Your task to perform on an android device: change your default location settings in chrome Image 0: 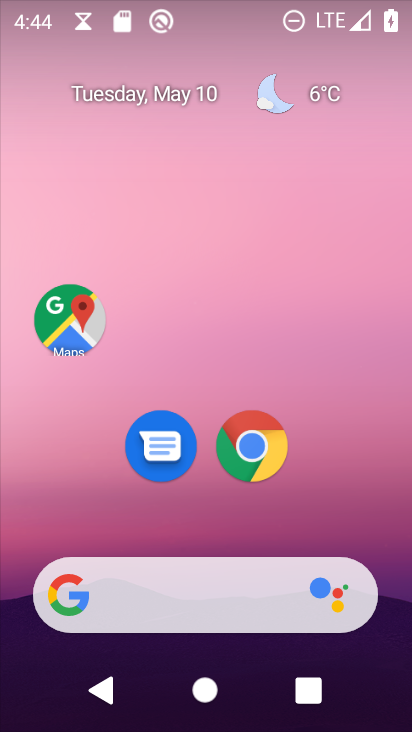
Step 0: drag from (238, 524) to (177, 106)
Your task to perform on an android device: change your default location settings in chrome Image 1: 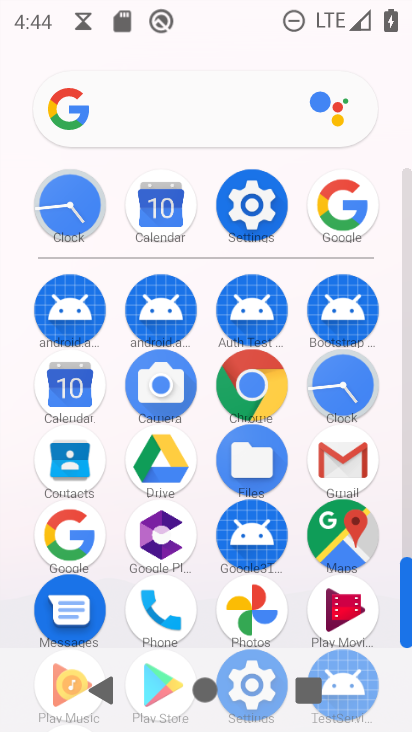
Step 1: click (249, 383)
Your task to perform on an android device: change your default location settings in chrome Image 2: 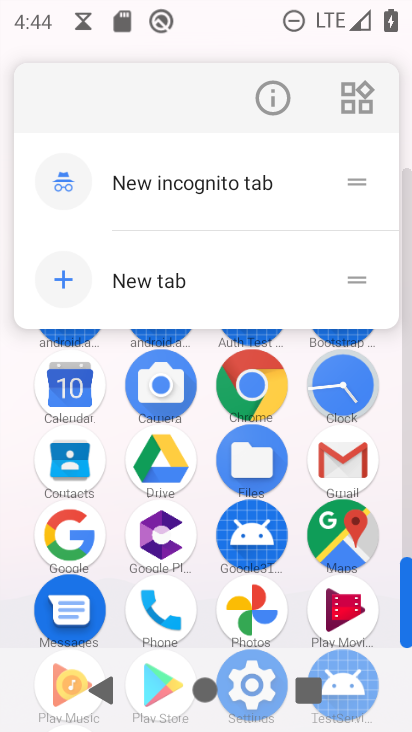
Step 2: click (254, 385)
Your task to perform on an android device: change your default location settings in chrome Image 3: 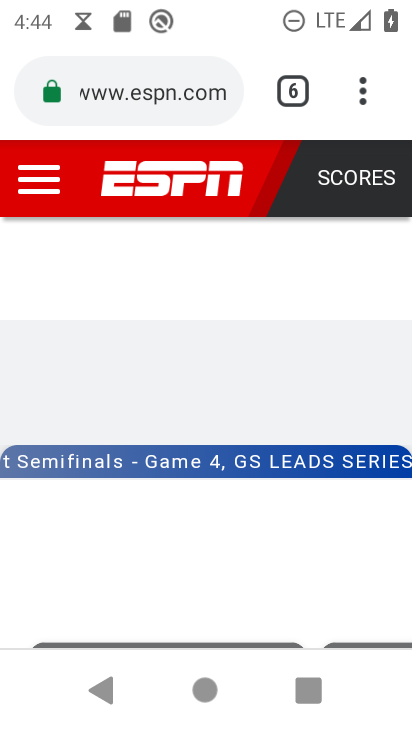
Step 3: click (363, 92)
Your task to perform on an android device: change your default location settings in chrome Image 4: 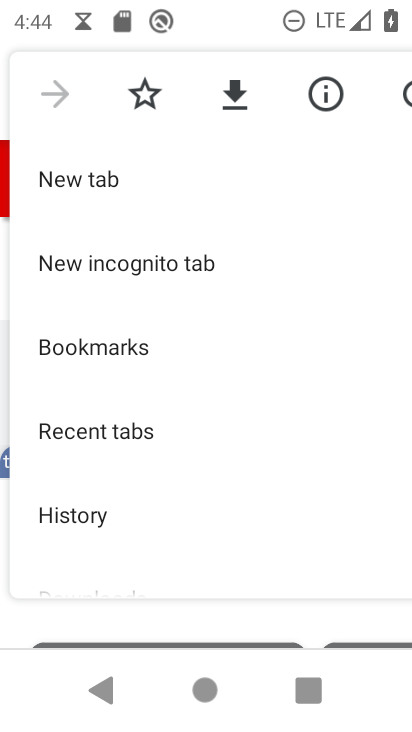
Step 4: drag from (178, 518) to (146, 175)
Your task to perform on an android device: change your default location settings in chrome Image 5: 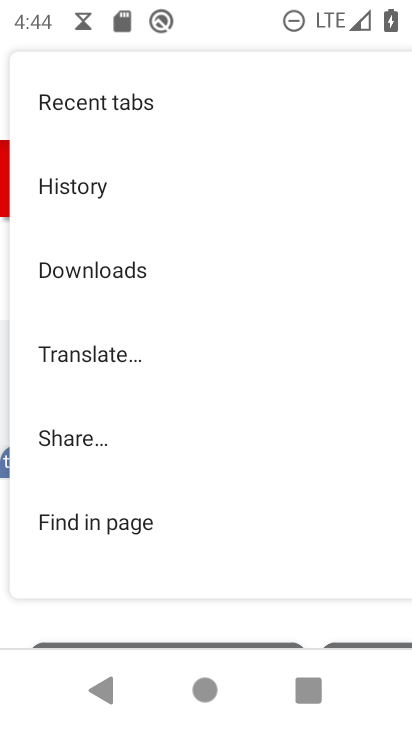
Step 5: drag from (199, 488) to (174, 204)
Your task to perform on an android device: change your default location settings in chrome Image 6: 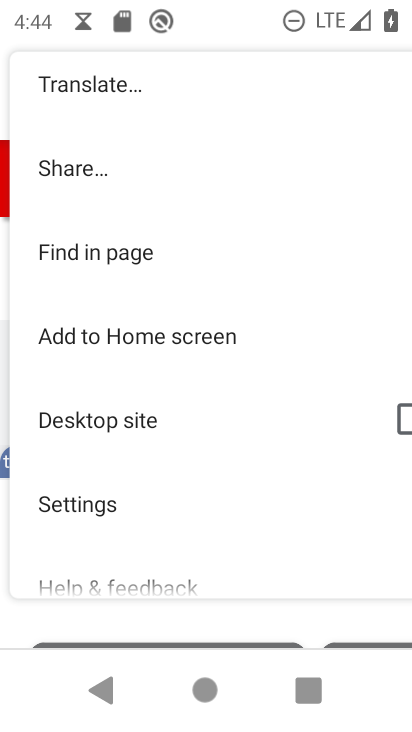
Step 6: click (149, 480)
Your task to perform on an android device: change your default location settings in chrome Image 7: 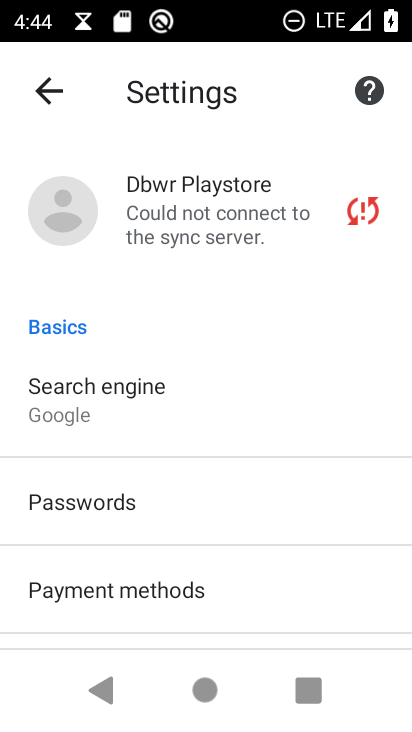
Step 7: drag from (176, 497) to (162, 166)
Your task to perform on an android device: change your default location settings in chrome Image 8: 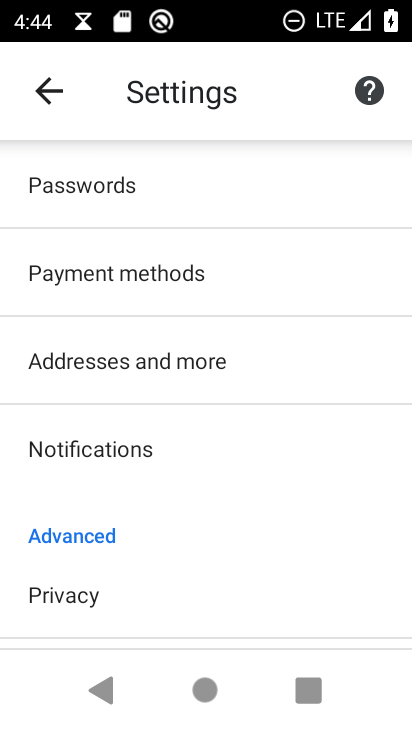
Step 8: drag from (176, 493) to (176, 254)
Your task to perform on an android device: change your default location settings in chrome Image 9: 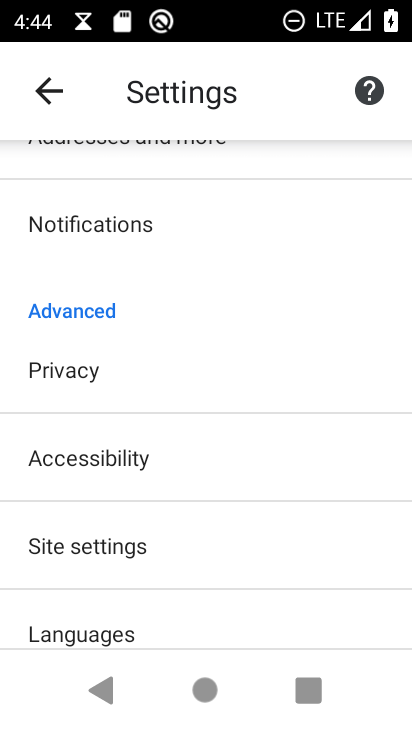
Step 9: click (150, 552)
Your task to perform on an android device: change your default location settings in chrome Image 10: 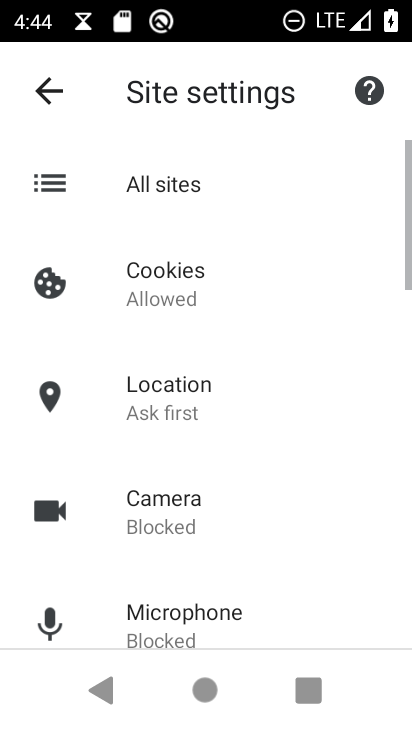
Step 10: click (187, 388)
Your task to perform on an android device: change your default location settings in chrome Image 11: 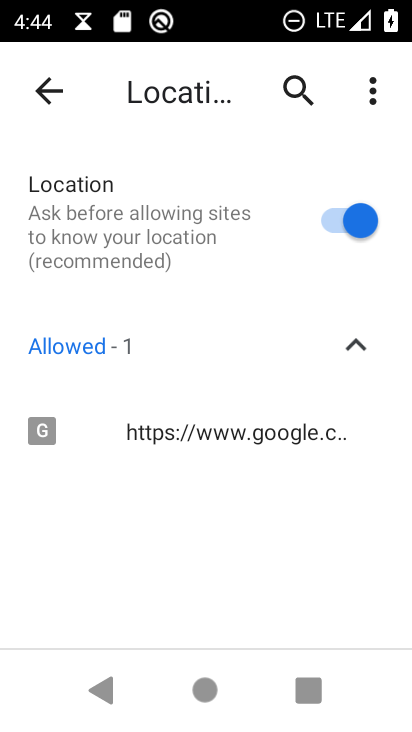
Step 11: click (346, 227)
Your task to perform on an android device: change your default location settings in chrome Image 12: 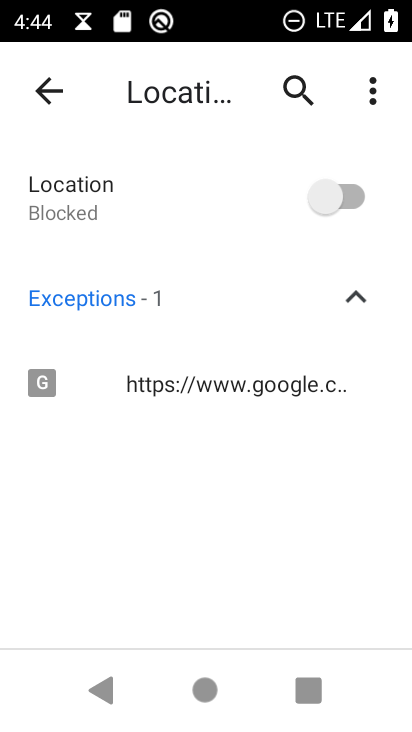
Step 12: task complete